Your task to perform on an android device: Open Google Maps Image 0: 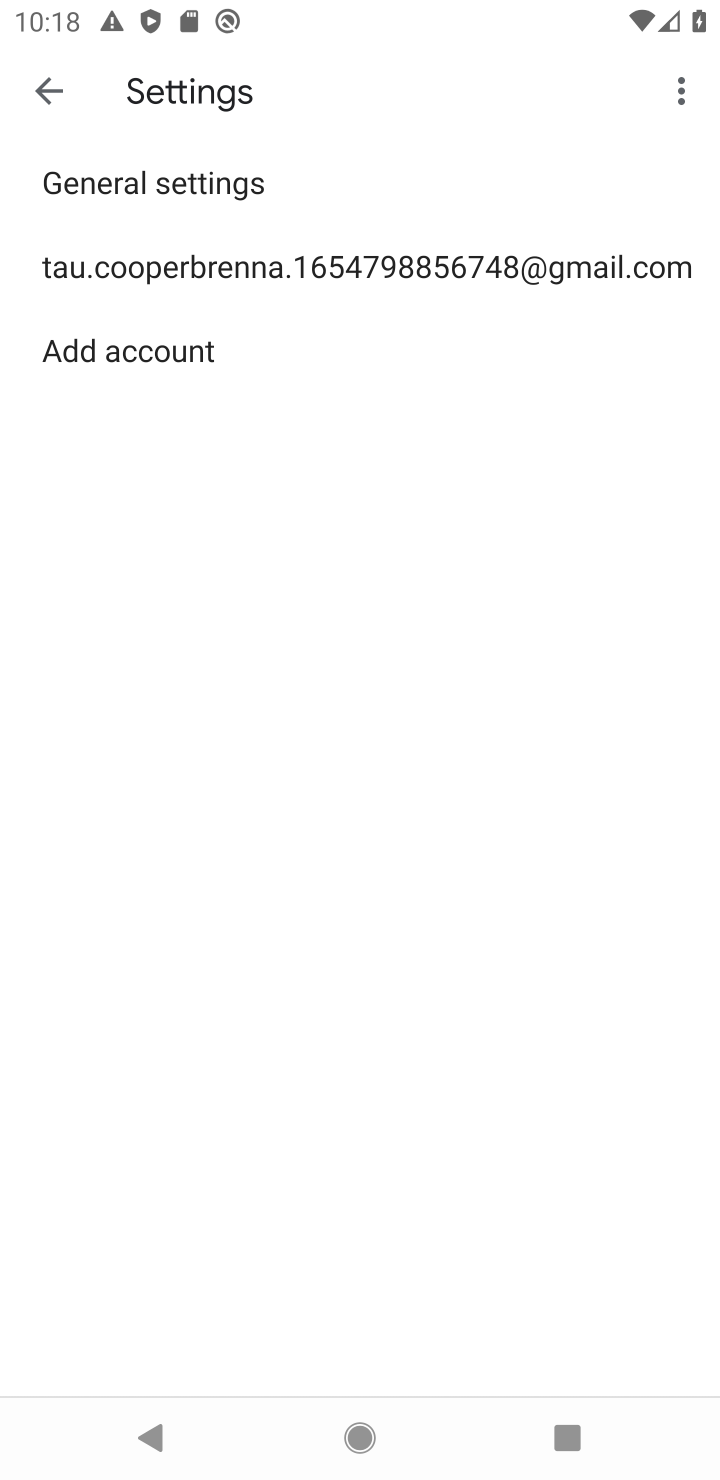
Step 0: press home button
Your task to perform on an android device: Open Google Maps Image 1: 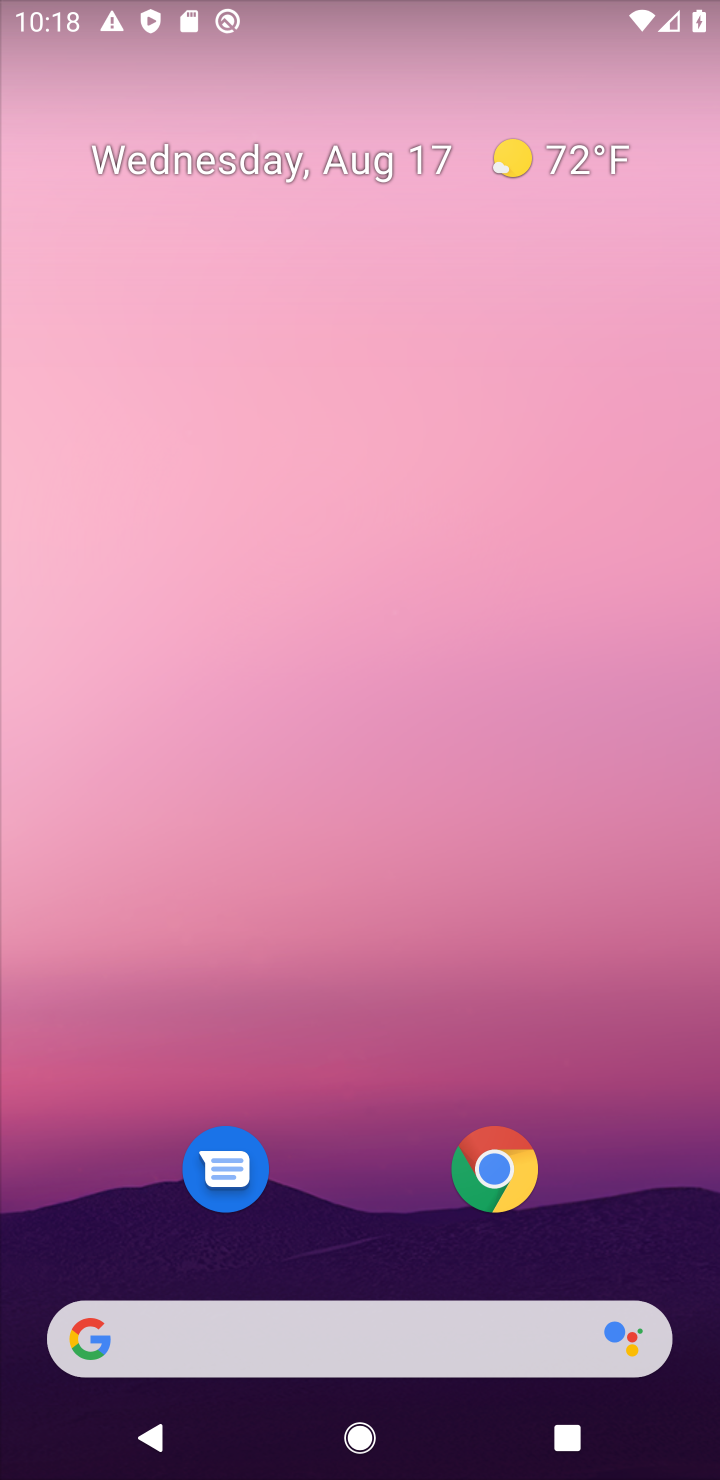
Step 1: task complete